Your task to perform on an android device: change the clock display to show seconds Image 0: 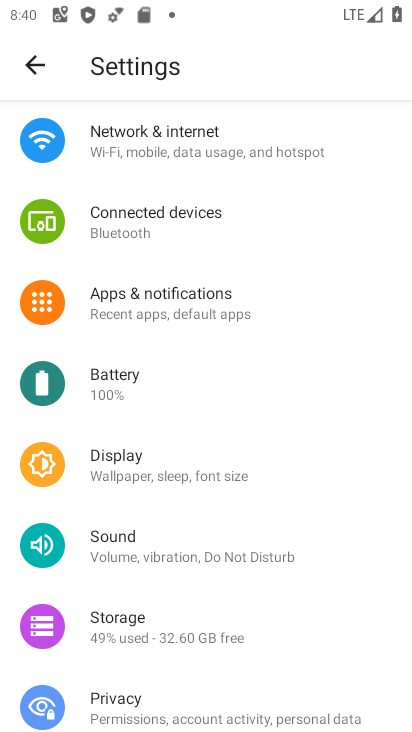
Step 0: press back button
Your task to perform on an android device: change the clock display to show seconds Image 1: 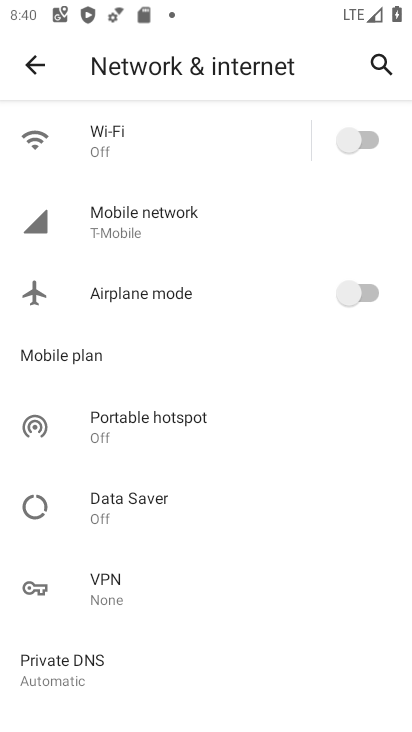
Step 1: press back button
Your task to perform on an android device: change the clock display to show seconds Image 2: 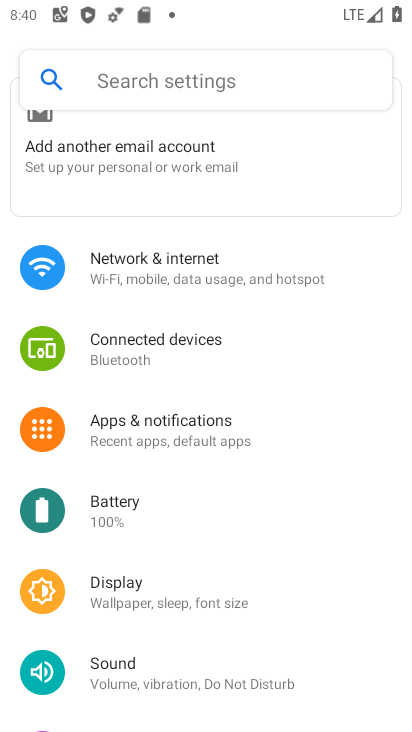
Step 2: press back button
Your task to perform on an android device: change the clock display to show seconds Image 3: 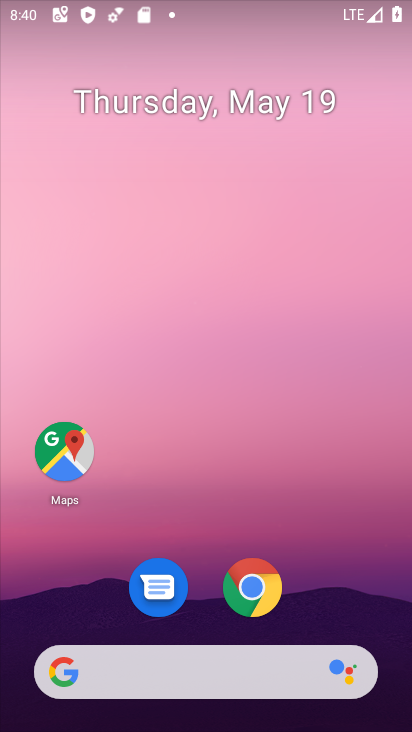
Step 3: drag from (335, 618) to (289, 74)
Your task to perform on an android device: change the clock display to show seconds Image 4: 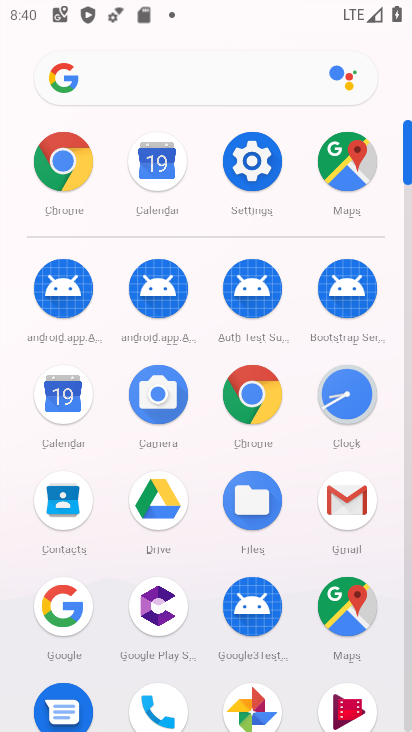
Step 4: drag from (6, 542) to (24, 210)
Your task to perform on an android device: change the clock display to show seconds Image 5: 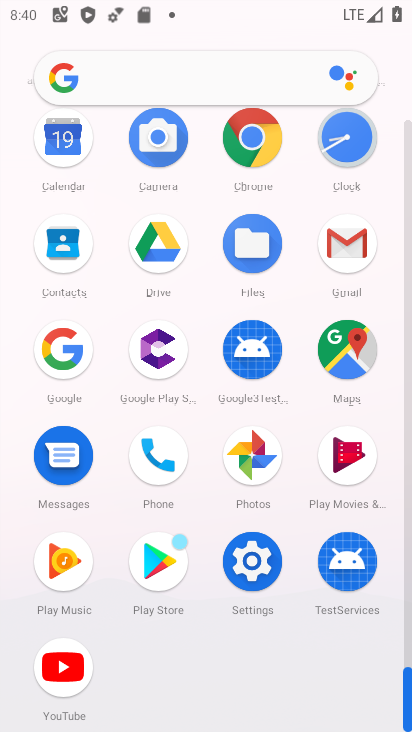
Step 5: click (344, 131)
Your task to perform on an android device: change the clock display to show seconds Image 6: 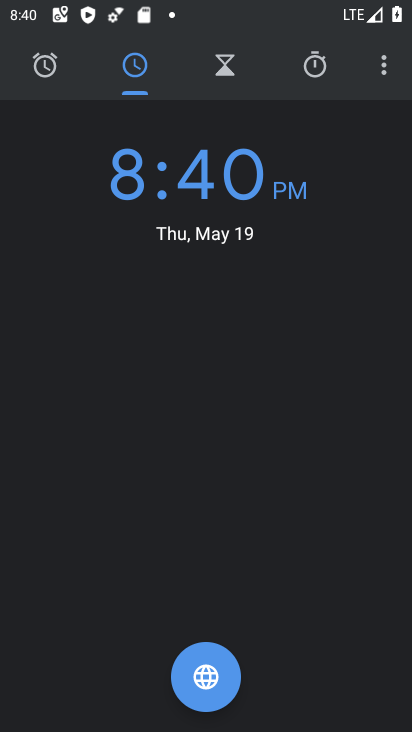
Step 6: drag from (378, 63) to (278, 138)
Your task to perform on an android device: change the clock display to show seconds Image 7: 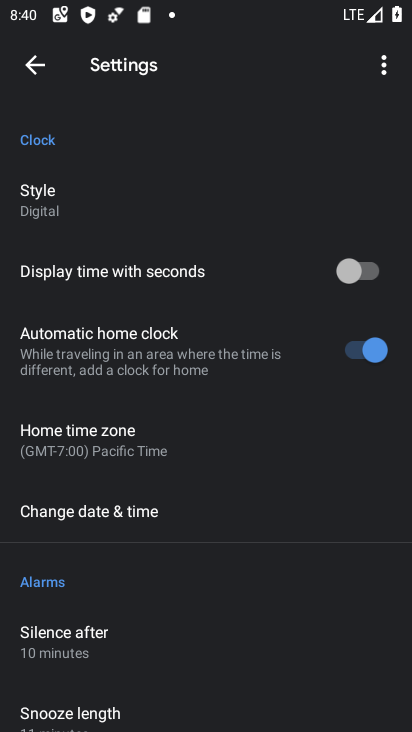
Step 7: click (355, 268)
Your task to perform on an android device: change the clock display to show seconds Image 8: 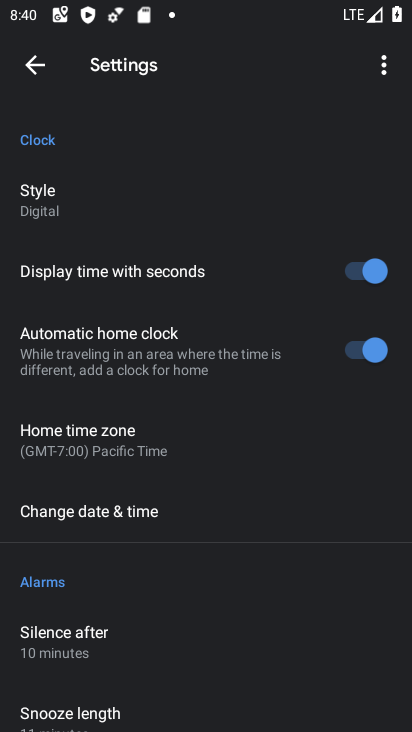
Step 8: task complete